Your task to perform on an android device: allow cookies in the chrome app Image 0: 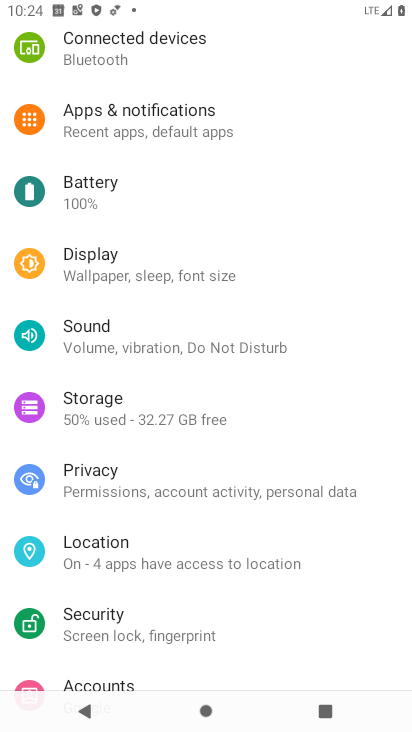
Step 0: press home button
Your task to perform on an android device: allow cookies in the chrome app Image 1: 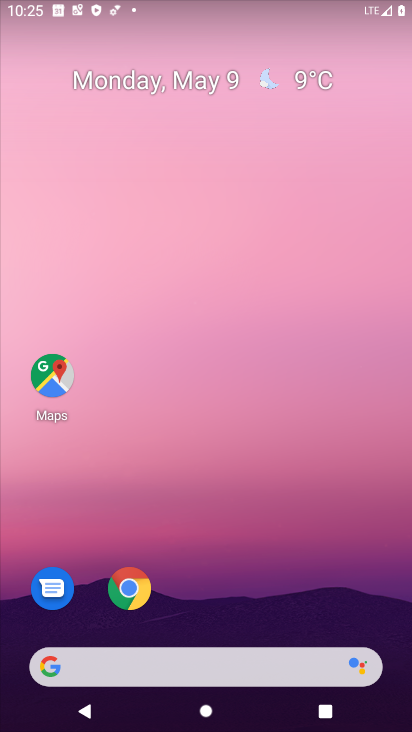
Step 1: drag from (154, 660) to (288, 181)
Your task to perform on an android device: allow cookies in the chrome app Image 2: 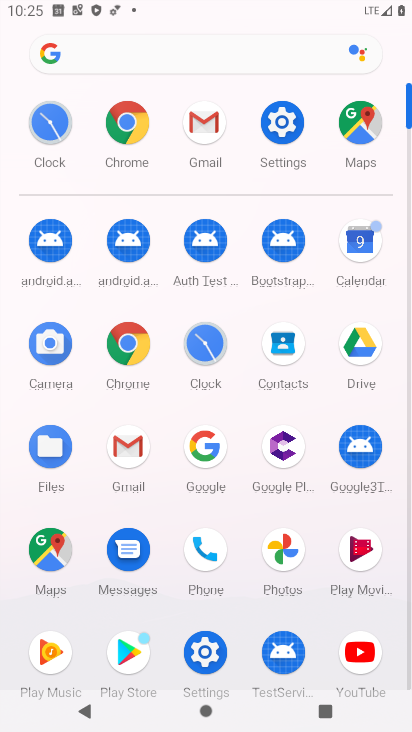
Step 2: click (135, 136)
Your task to perform on an android device: allow cookies in the chrome app Image 3: 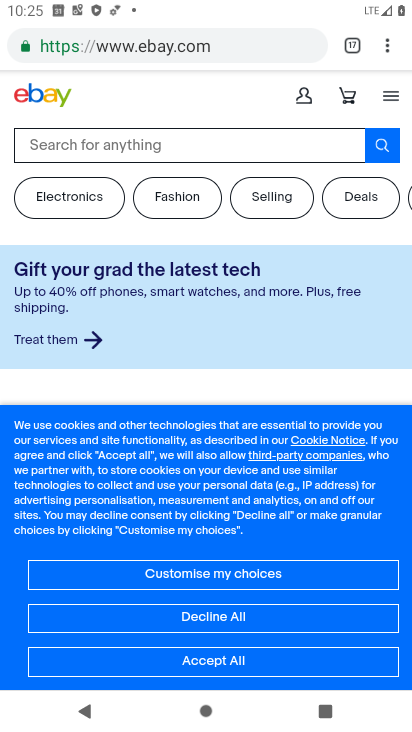
Step 3: drag from (387, 54) to (251, 555)
Your task to perform on an android device: allow cookies in the chrome app Image 4: 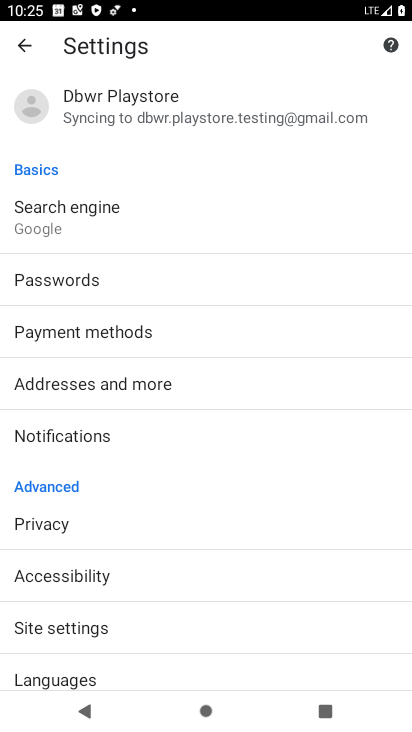
Step 4: click (77, 627)
Your task to perform on an android device: allow cookies in the chrome app Image 5: 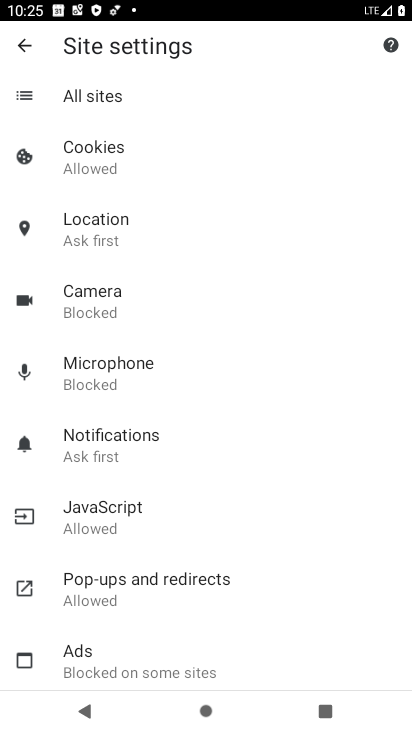
Step 5: click (120, 150)
Your task to perform on an android device: allow cookies in the chrome app Image 6: 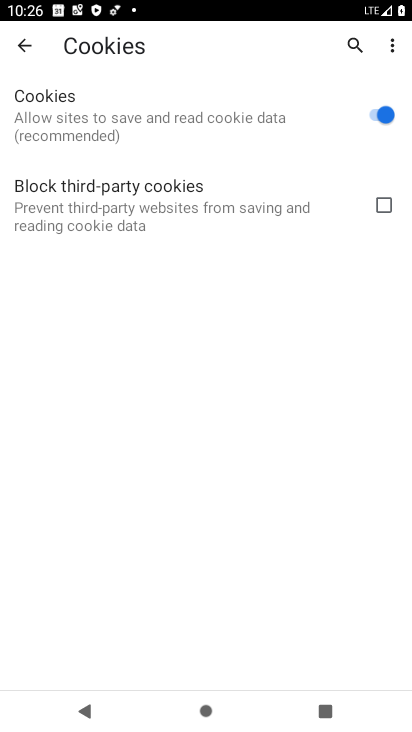
Step 6: task complete